Your task to perform on an android device: turn off translation in the chrome app Image 0: 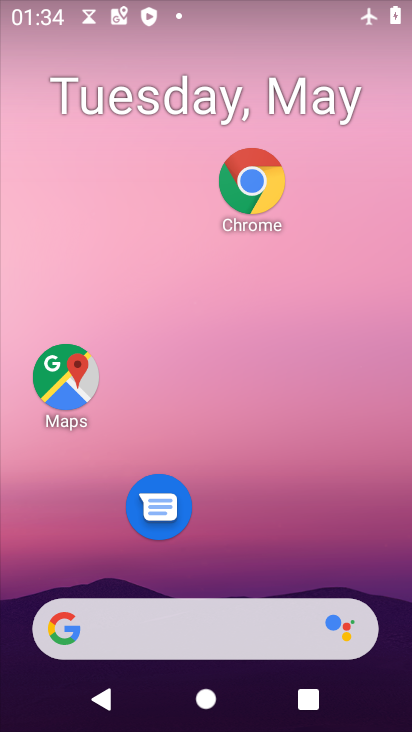
Step 0: drag from (302, 499) to (326, 290)
Your task to perform on an android device: turn off translation in the chrome app Image 1: 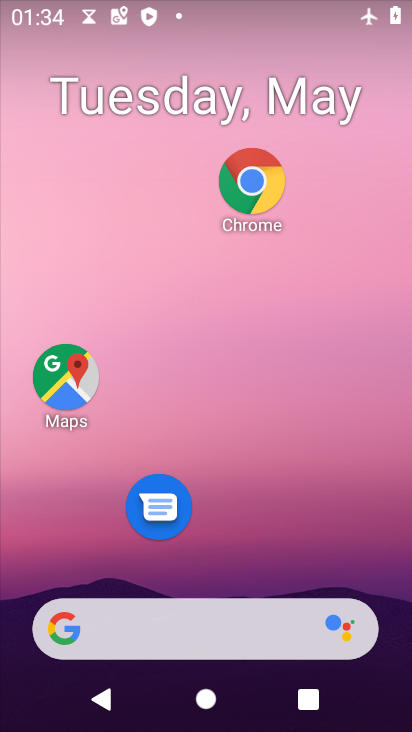
Step 1: drag from (256, 580) to (292, 237)
Your task to perform on an android device: turn off translation in the chrome app Image 2: 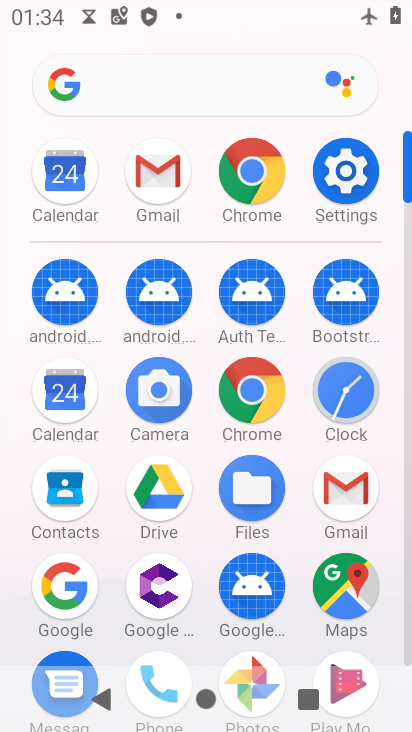
Step 2: click (259, 163)
Your task to perform on an android device: turn off translation in the chrome app Image 3: 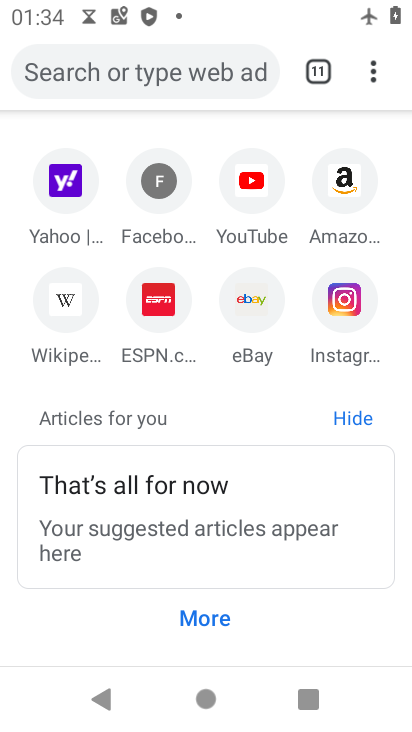
Step 3: click (377, 71)
Your task to perform on an android device: turn off translation in the chrome app Image 4: 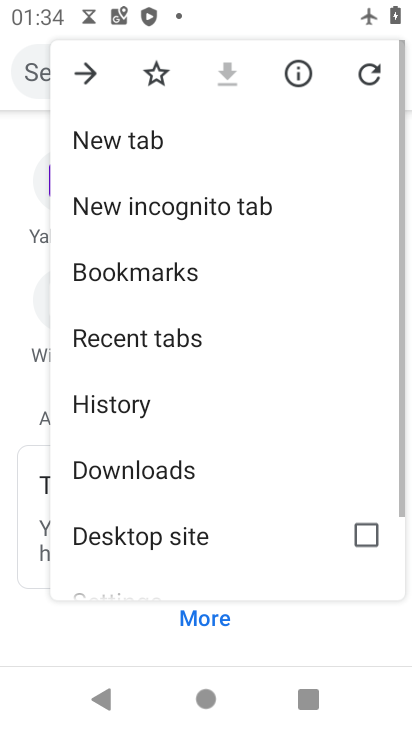
Step 4: drag from (192, 521) to (241, 200)
Your task to perform on an android device: turn off translation in the chrome app Image 5: 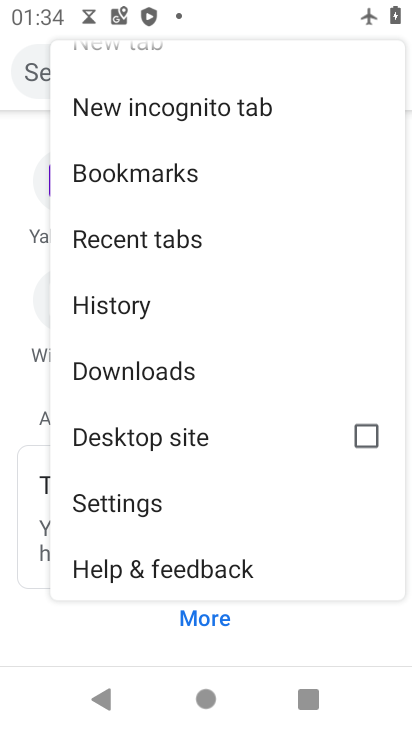
Step 5: click (174, 496)
Your task to perform on an android device: turn off translation in the chrome app Image 6: 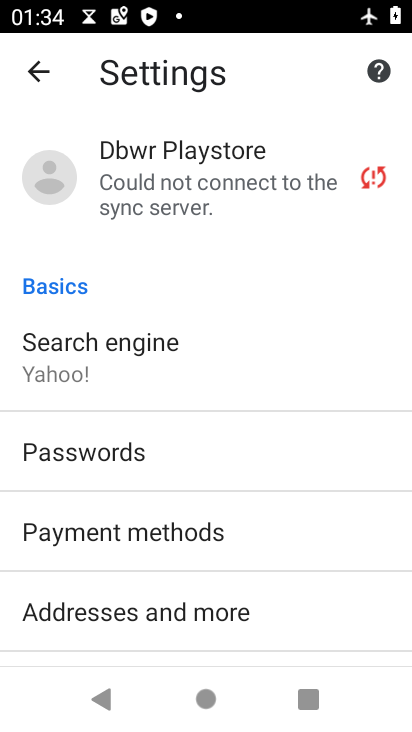
Step 6: drag from (268, 578) to (315, 240)
Your task to perform on an android device: turn off translation in the chrome app Image 7: 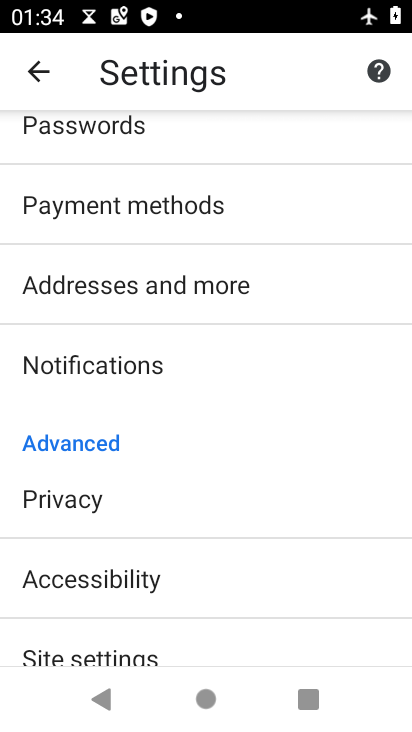
Step 7: drag from (200, 556) to (267, 263)
Your task to perform on an android device: turn off translation in the chrome app Image 8: 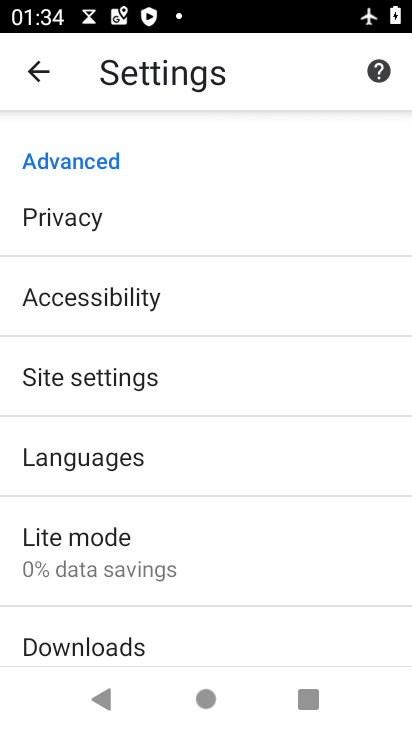
Step 8: click (168, 460)
Your task to perform on an android device: turn off translation in the chrome app Image 9: 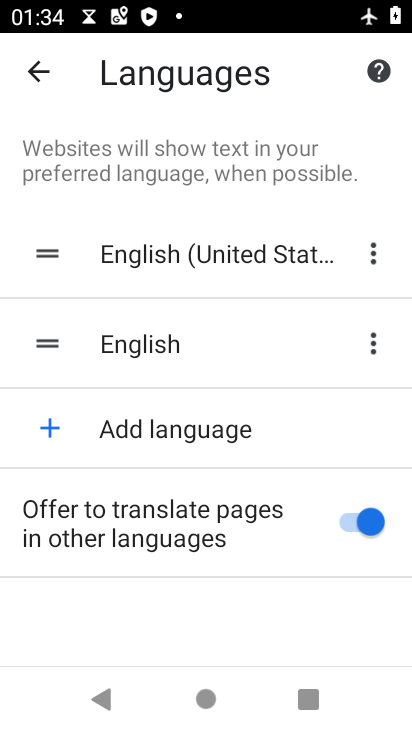
Step 9: click (361, 506)
Your task to perform on an android device: turn off translation in the chrome app Image 10: 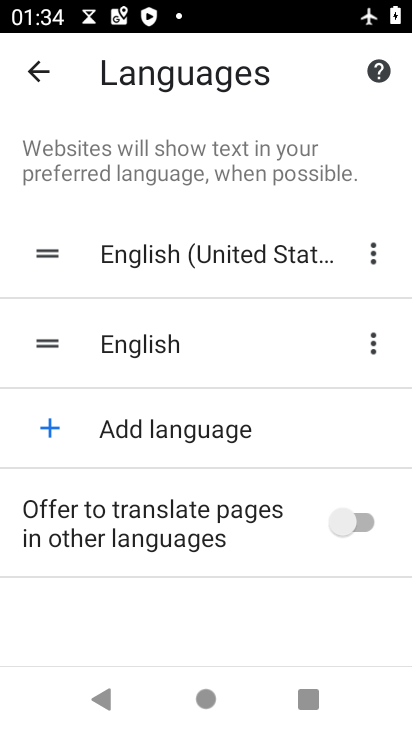
Step 10: task complete